Your task to perform on an android device: Open display settings Image 0: 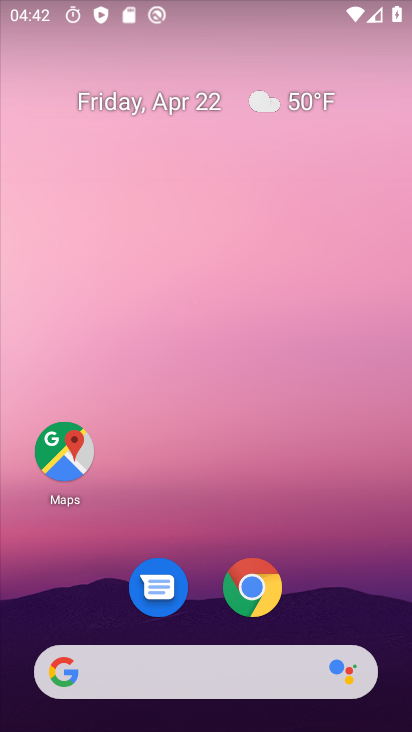
Step 0: drag from (340, 612) to (324, 4)
Your task to perform on an android device: Open display settings Image 1: 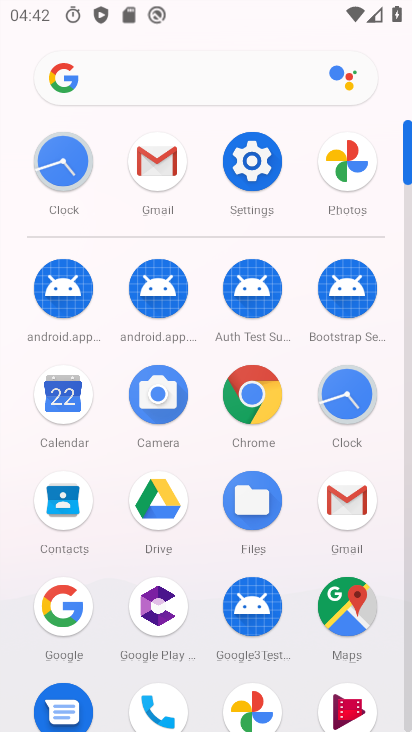
Step 1: click (243, 166)
Your task to perform on an android device: Open display settings Image 2: 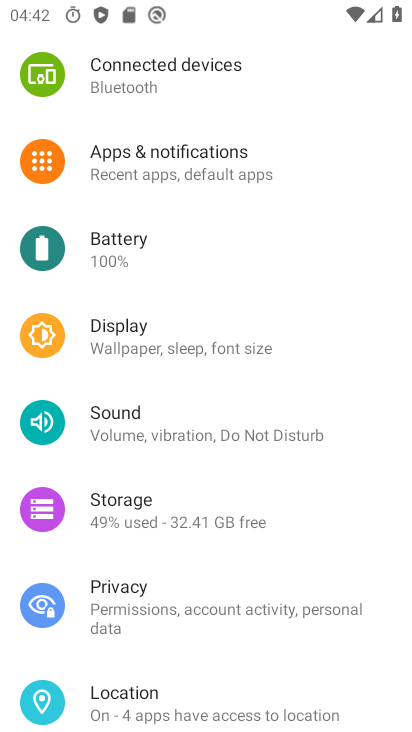
Step 2: click (110, 340)
Your task to perform on an android device: Open display settings Image 3: 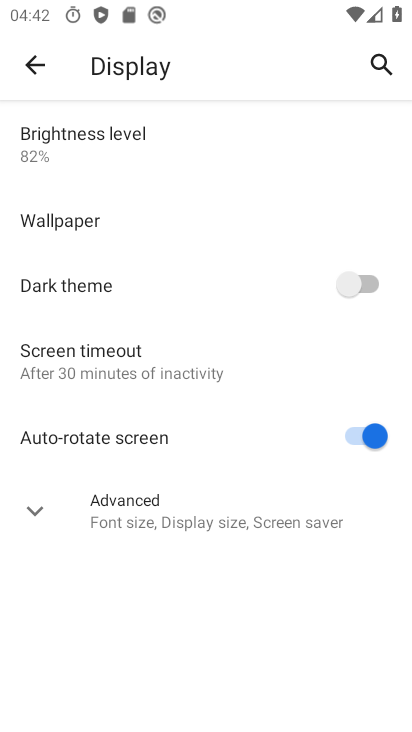
Step 3: task complete